Your task to perform on an android device: Show me the alarms in the clock app Image 0: 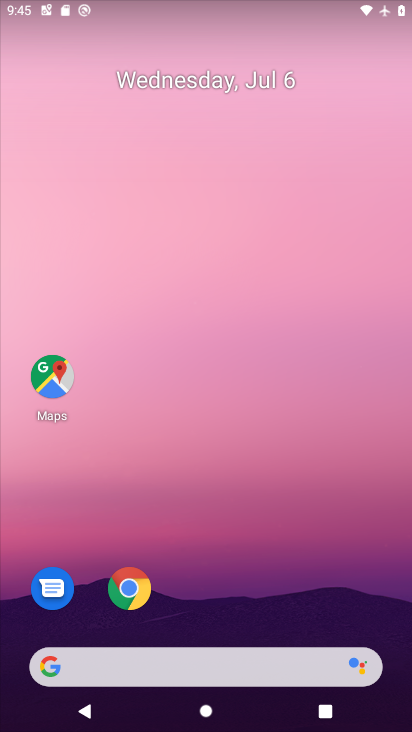
Step 0: drag from (180, 662) to (295, 100)
Your task to perform on an android device: Show me the alarms in the clock app Image 1: 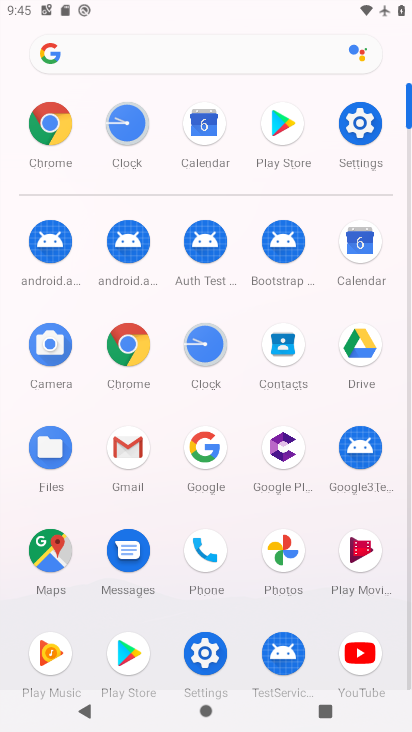
Step 1: click (210, 356)
Your task to perform on an android device: Show me the alarms in the clock app Image 2: 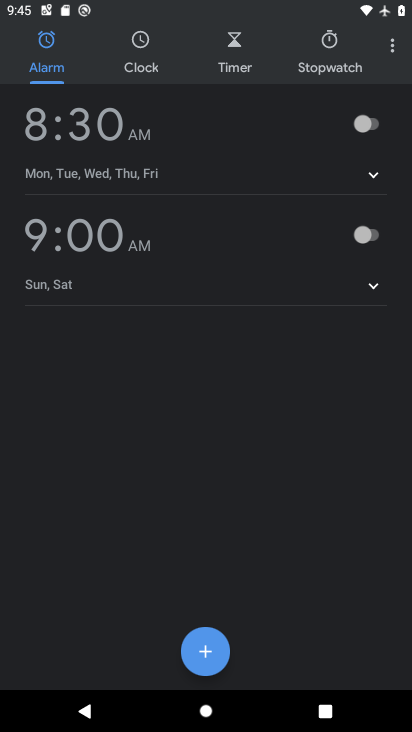
Step 2: task complete